Your task to perform on an android device: Open Google Chrome and open the bookmarks view Image 0: 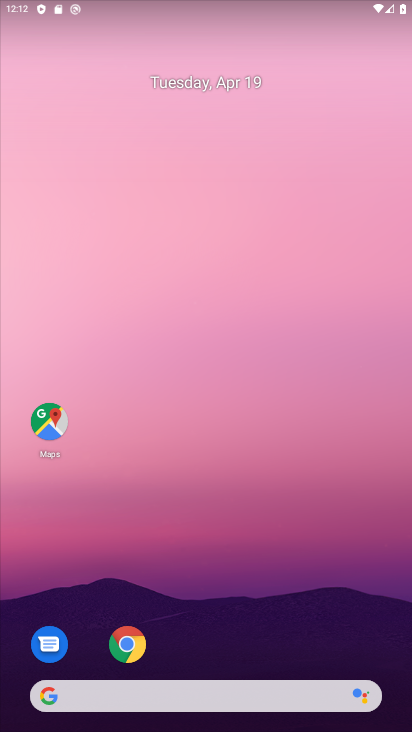
Step 0: click (132, 646)
Your task to perform on an android device: Open Google Chrome and open the bookmarks view Image 1: 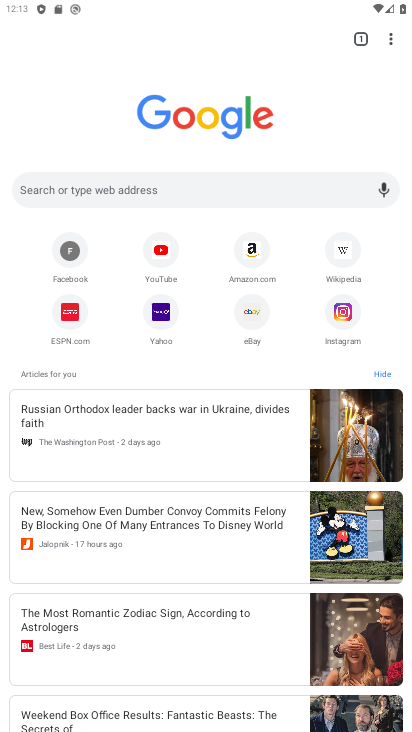
Step 1: click (389, 44)
Your task to perform on an android device: Open Google Chrome and open the bookmarks view Image 2: 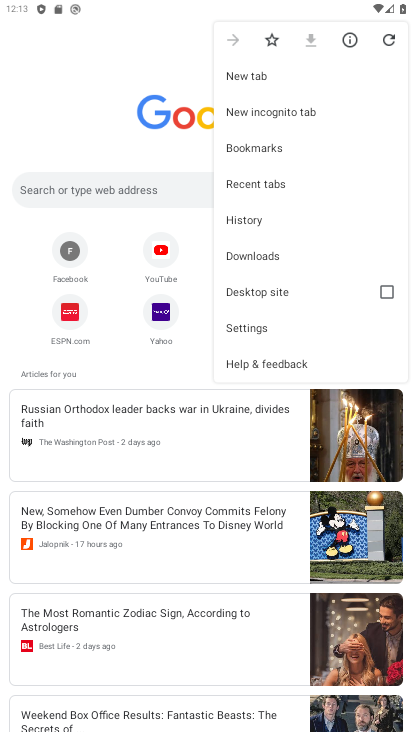
Step 2: click (268, 157)
Your task to perform on an android device: Open Google Chrome and open the bookmarks view Image 3: 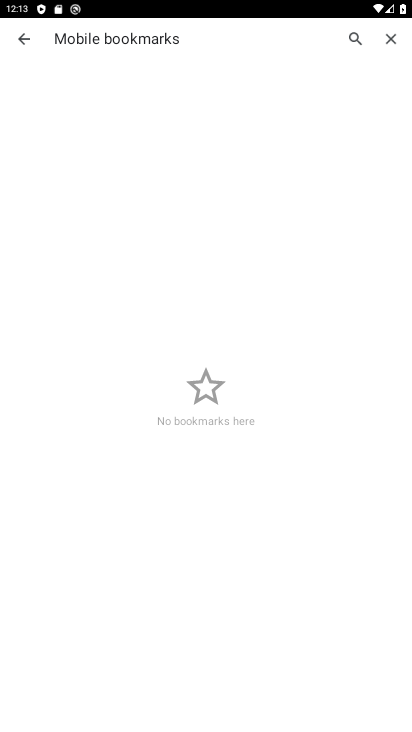
Step 3: task complete